Your task to perform on an android device: check battery use Image 0: 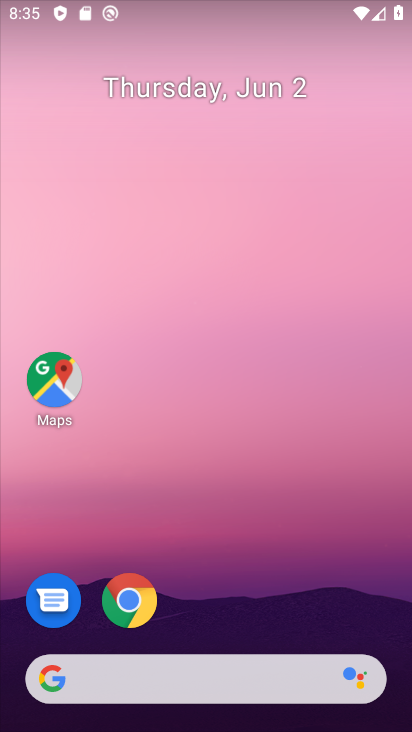
Step 0: drag from (197, 476) to (304, 161)
Your task to perform on an android device: check battery use Image 1: 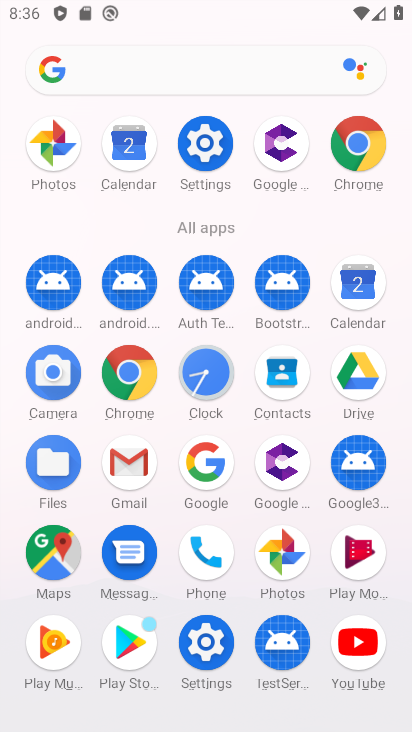
Step 1: click (210, 155)
Your task to perform on an android device: check battery use Image 2: 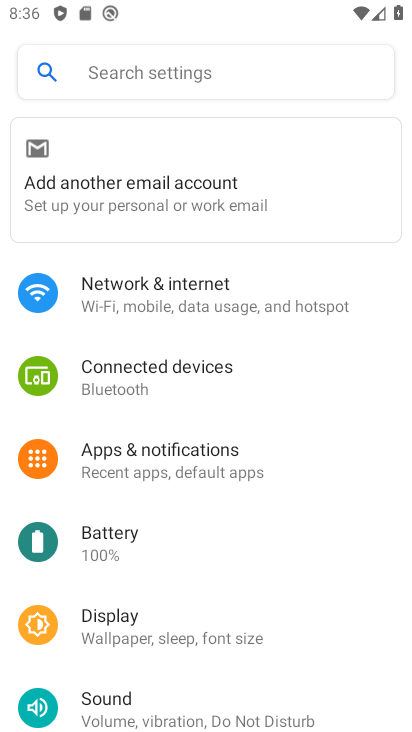
Step 2: click (146, 540)
Your task to perform on an android device: check battery use Image 3: 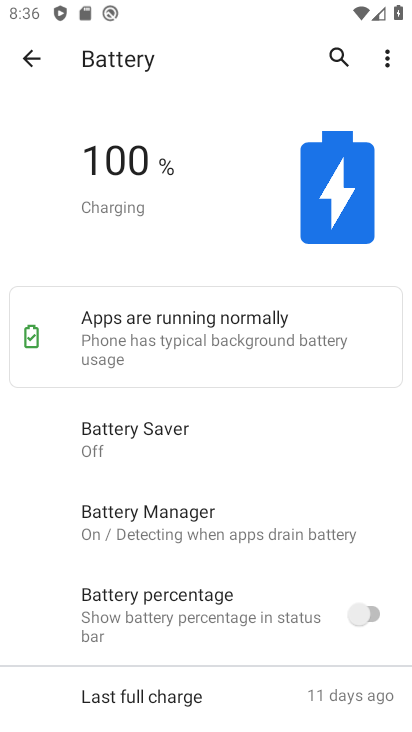
Step 3: task complete